Your task to perform on an android device: Open Chrome and go to the settings page Image 0: 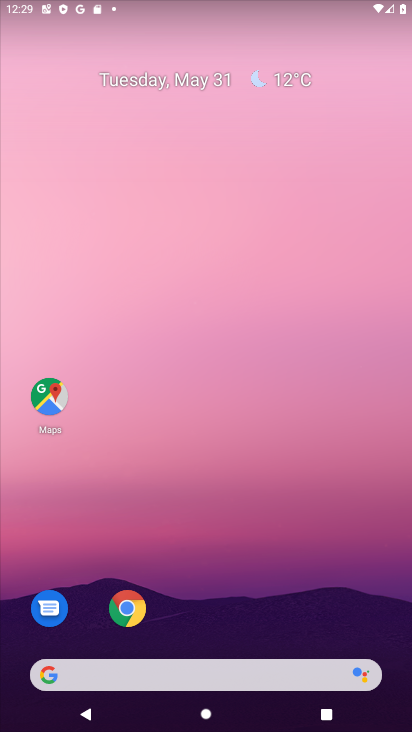
Step 0: click (128, 608)
Your task to perform on an android device: Open Chrome and go to the settings page Image 1: 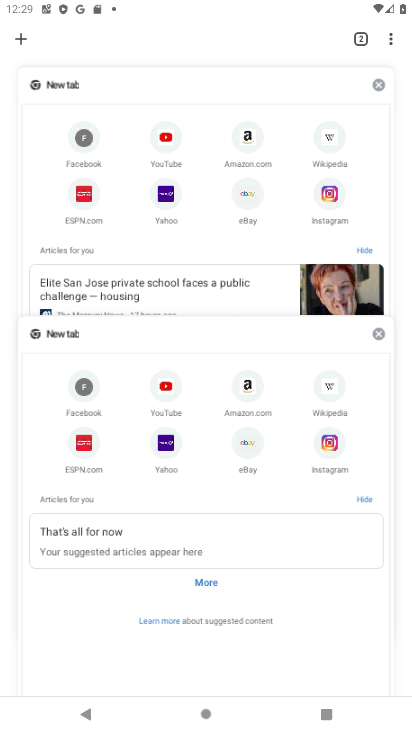
Step 1: press back button
Your task to perform on an android device: Open Chrome and go to the settings page Image 2: 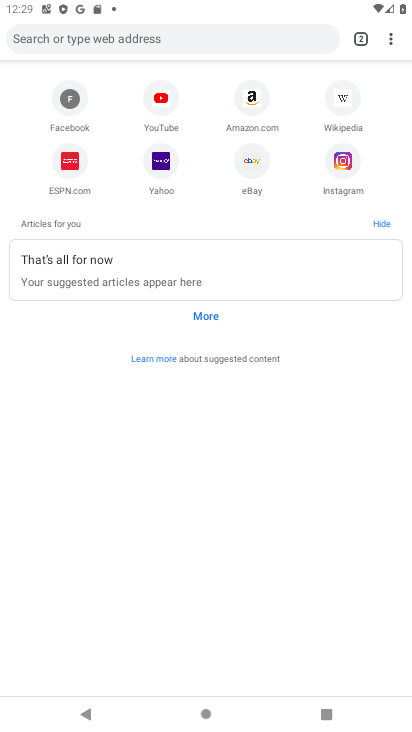
Step 2: click (385, 38)
Your task to perform on an android device: Open Chrome and go to the settings page Image 3: 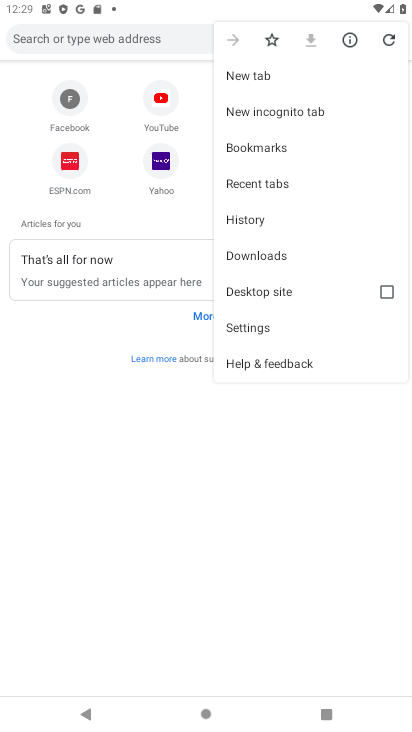
Step 3: click (269, 326)
Your task to perform on an android device: Open Chrome and go to the settings page Image 4: 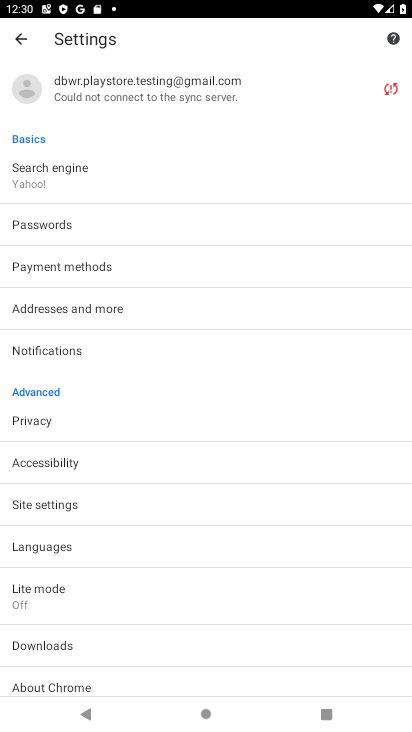
Step 4: task complete